Your task to perform on an android device: turn on translation in the chrome app Image 0: 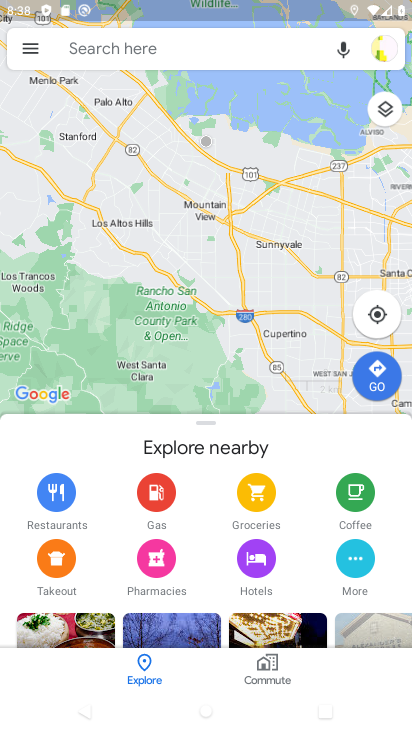
Step 0: press home button
Your task to perform on an android device: turn on translation in the chrome app Image 1: 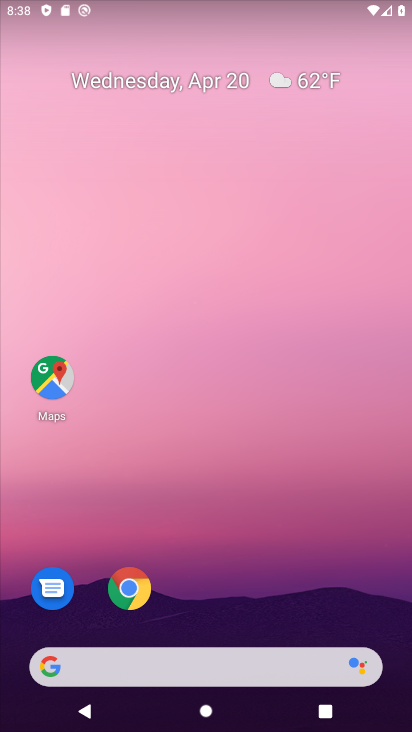
Step 1: click (124, 578)
Your task to perform on an android device: turn on translation in the chrome app Image 2: 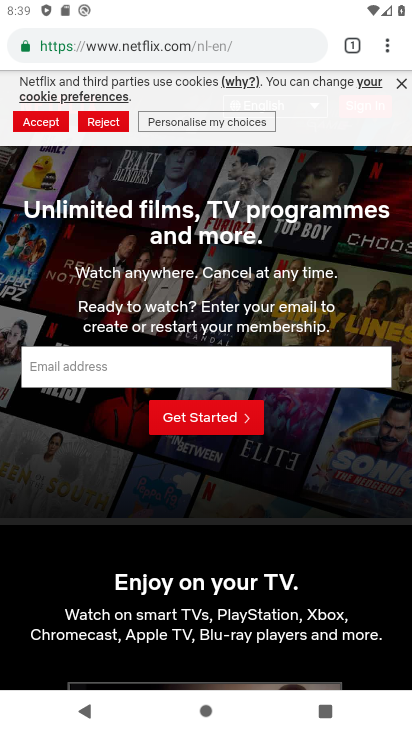
Step 2: click (382, 46)
Your task to perform on an android device: turn on translation in the chrome app Image 3: 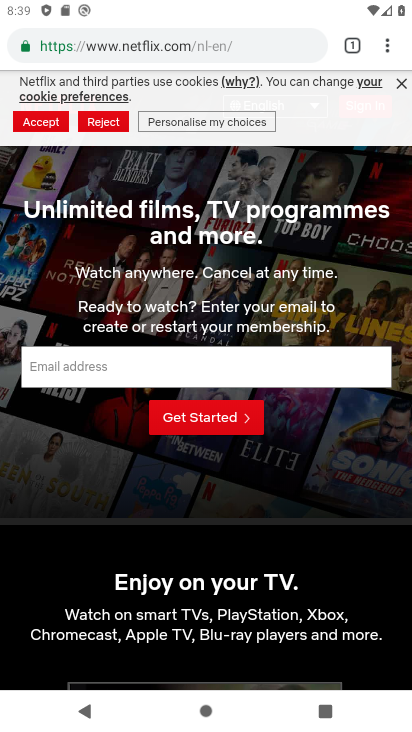
Step 3: click (385, 45)
Your task to perform on an android device: turn on translation in the chrome app Image 4: 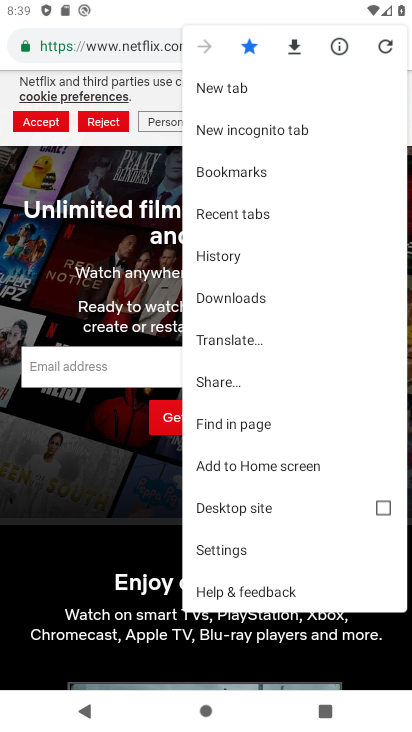
Step 4: click (250, 548)
Your task to perform on an android device: turn on translation in the chrome app Image 5: 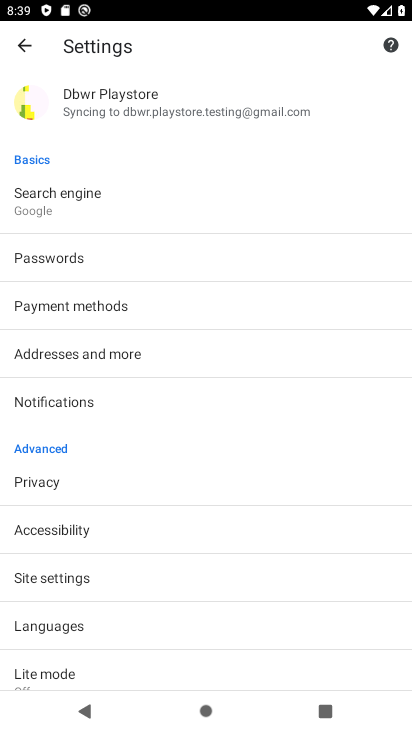
Step 5: click (92, 619)
Your task to perform on an android device: turn on translation in the chrome app Image 6: 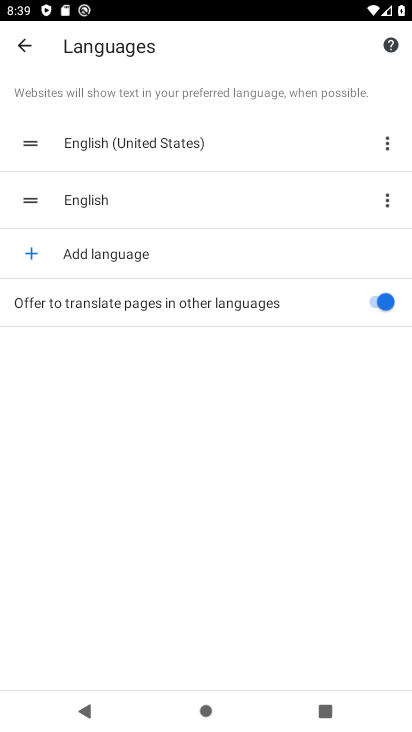
Step 6: task complete